Your task to perform on an android device: turn on improve location accuracy Image 0: 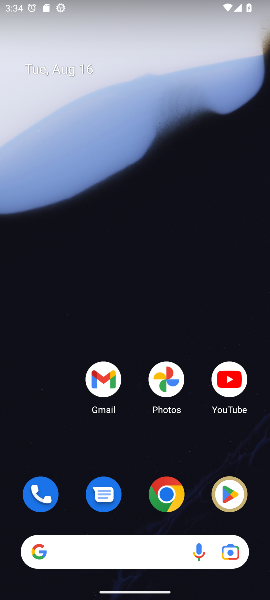
Step 0: drag from (154, 516) to (186, 471)
Your task to perform on an android device: turn on improve location accuracy Image 1: 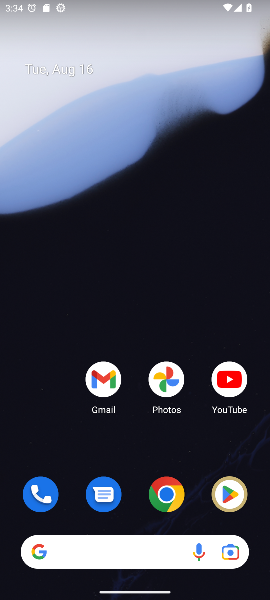
Step 1: drag from (140, 527) to (110, 34)
Your task to perform on an android device: turn on improve location accuracy Image 2: 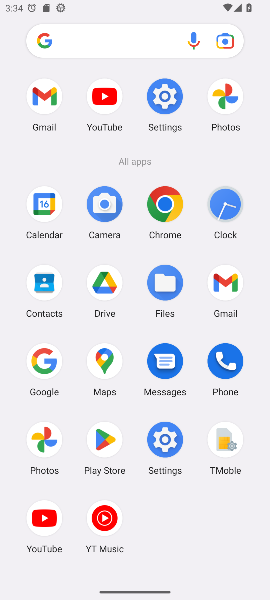
Step 2: click (163, 454)
Your task to perform on an android device: turn on improve location accuracy Image 3: 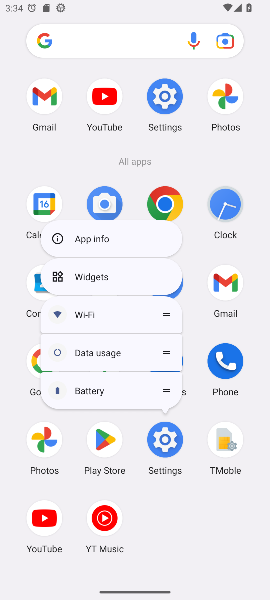
Step 3: click (161, 442)
Your task to perform on an android device: turn on improve location accuracy Image 4: 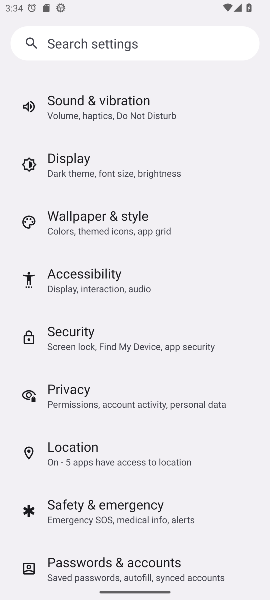
Step 4: click (68, 457)
Your task to perform on an android device: turn on improve location accuracy Image 5: 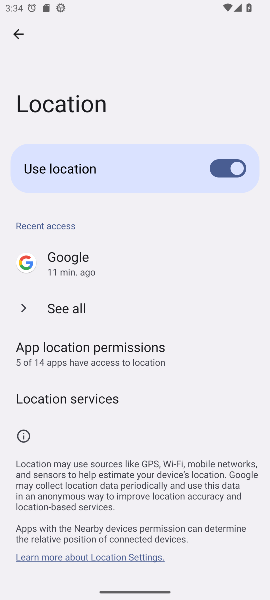
Step 5: click (96, 395)
Your task to perform on an android device: turn on improve location accuracy Image 6: 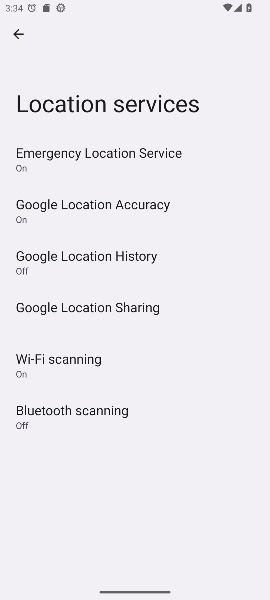
Step 6: click (128, 202)
Your task to perform on an android device: turn on improve location accuracy Image 7: 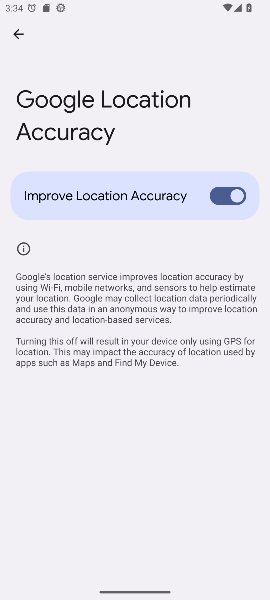
Step 7: task complete